Your task to perform on an android device: search for starred emails in the gmail app Image 0: 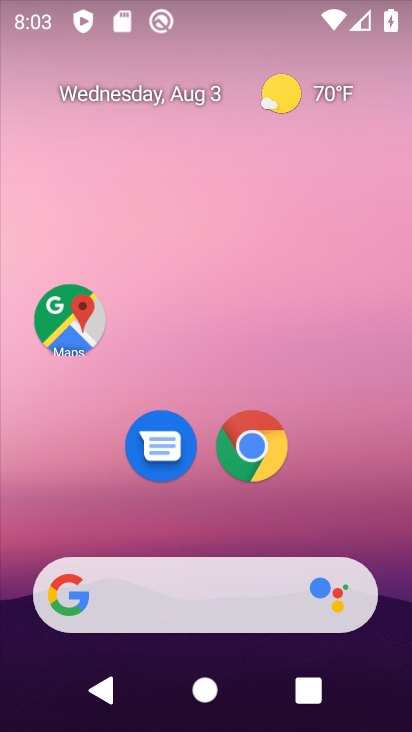
Step 0: drag from (377, 699) to (286, 139)
Your task to perform on an android device: search for starred emails in the gmail app Image 1: 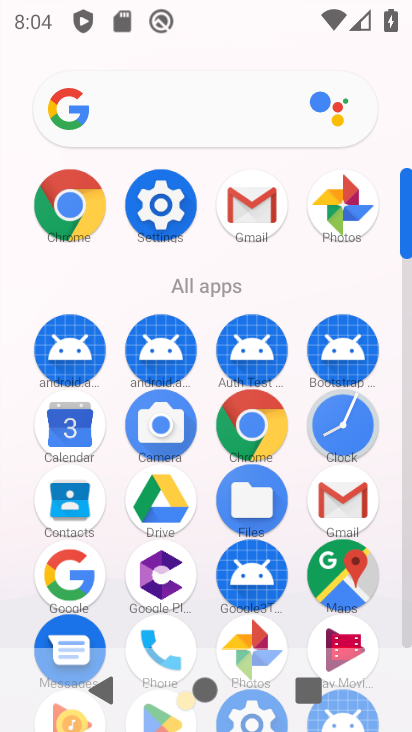
Step 1: click (355, 489)
Your task to perform on an android device: search for starred emails in the gmail app Image 2: 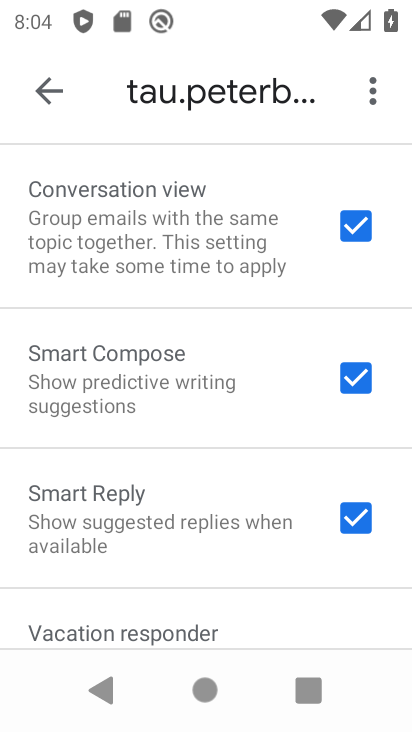
Step 2: drag from (250, 594) to (200, 267)
Your task to perform on an android device: search for starred emails in the gmail app Image 3: 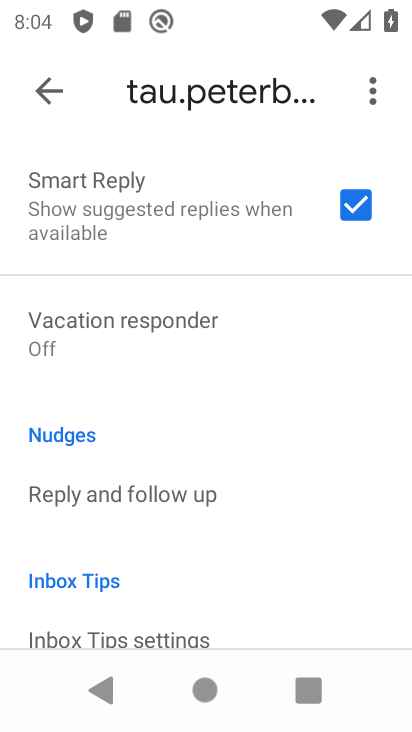
Step 3: drag from (160, 174) to (188, 647)
Your task to perform on an android device: search for starred emails in the gmail app Image 4: 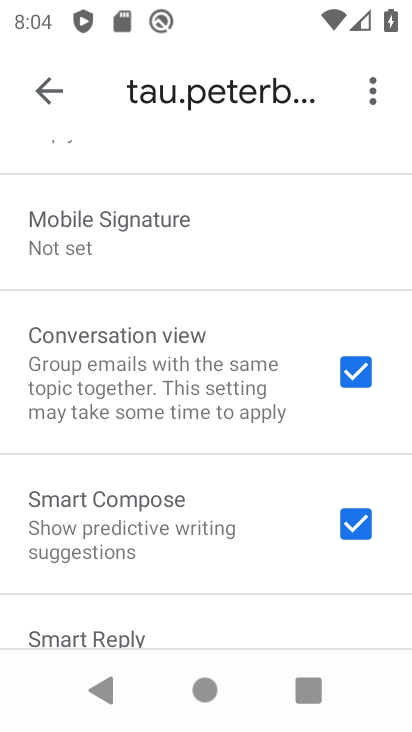
Step 4: drag from (191, 376) to (188, 582)
Your task to perform on an android device: search for starred emails in the gmail app Image 5: 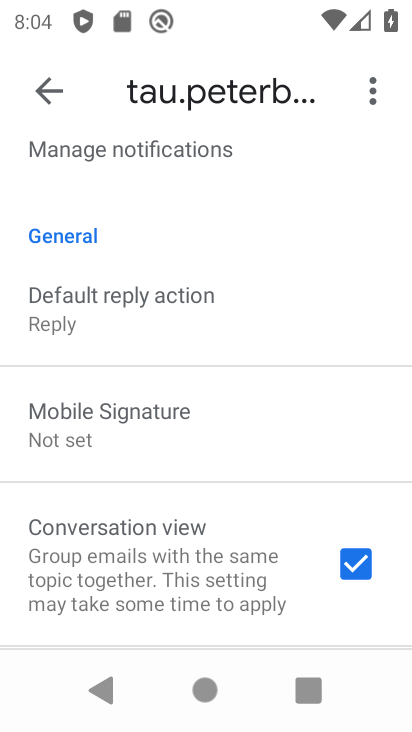
Step 5: click (49, 95)
Your task to perform on an android device: search for starred emails in the gmail app Image 6: 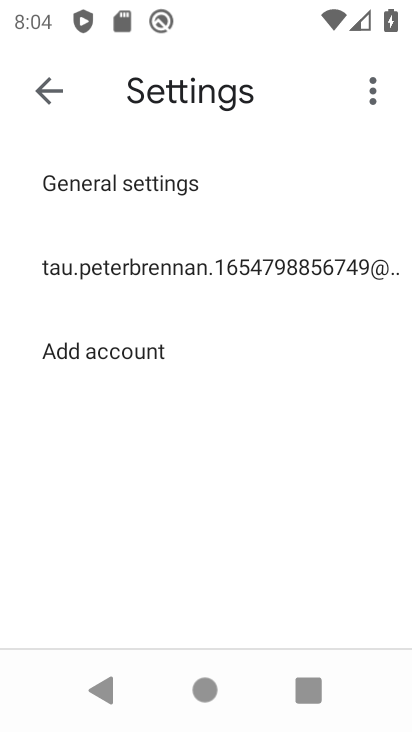
Step 6: click (59, 79)
Your task to perform on an android device: search for starred emails in the gmail app Image 7: 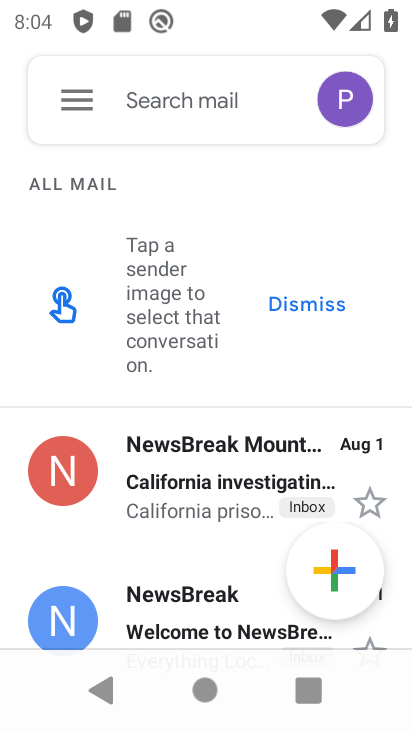
Step 7: click (74, 100)
Your task to perform on an android device: search for starred emails in the gmail app Image 8: 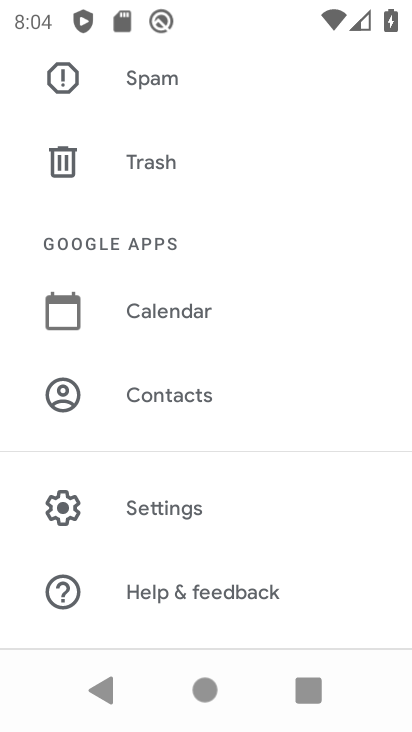
Step 8: drag from (267, 251) to (287, 594)
Your task to perform on an android device: search for starred emails in the gmail app Image 9: 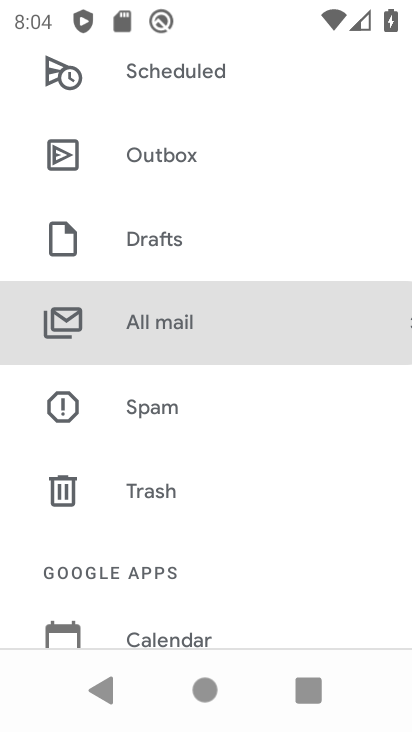
Step 9: drag from (303, 139) to (349, 642)
Your task to perform on an android device: search for starred emails in the gmail app Image 10: 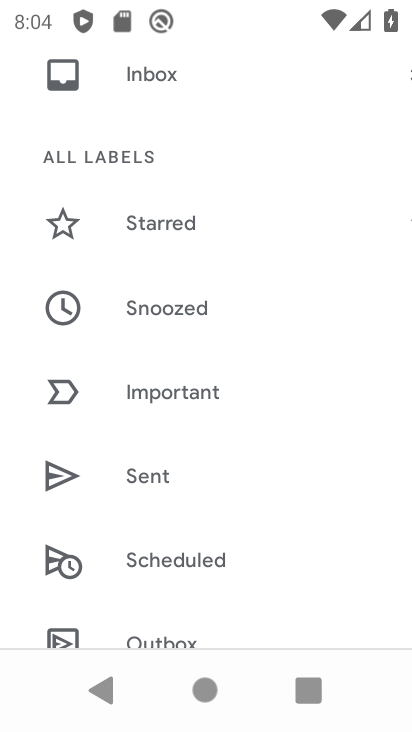
Step 10: click (160, 219)
Your task to perform on an android device: search for starred emails in the gmail app Image 11: 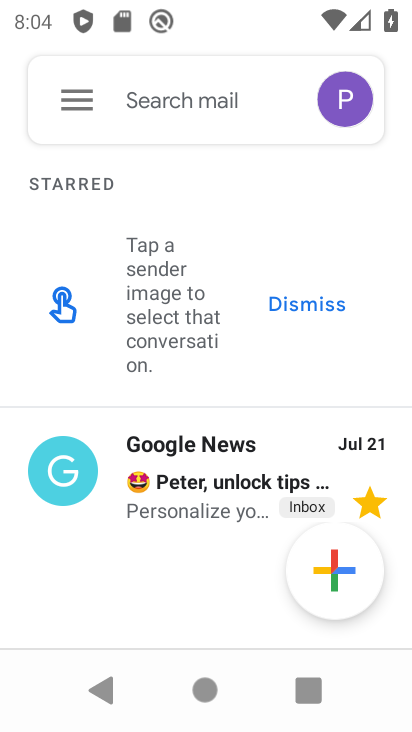
Step 11: task complete